Your task to perform on an android device: turn on javascript in the chrome app Image 0: 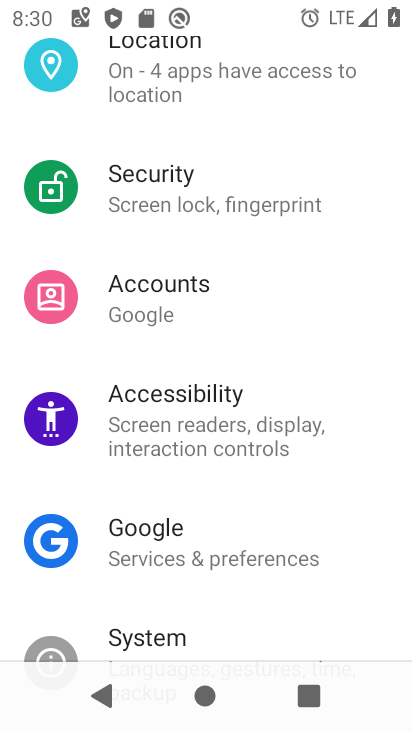
Step 0: press home button
Your task to perform on an android device: turn on javascript in the chrome app Image 1: 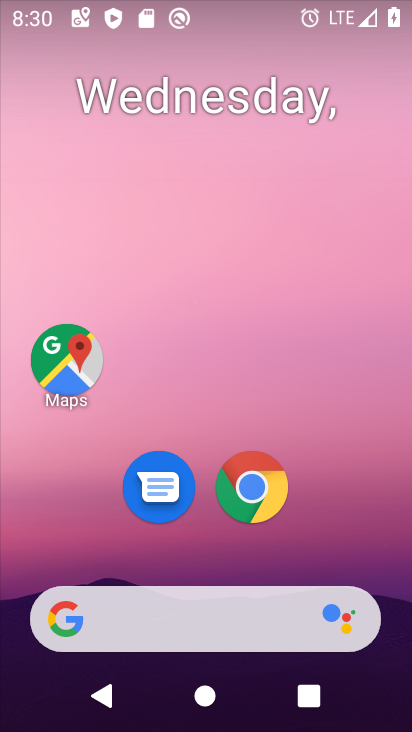
Step 1: click (259, 508)
Your task to perform on an android device: turn on javascript in the chrome app Image 2: 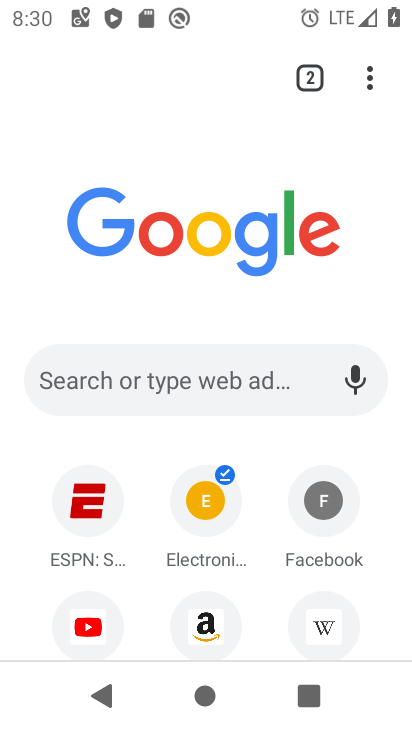
Step 2: click (371, 81)
Your task to perform on an android device: turn on javascript in the chrome app Image 3: 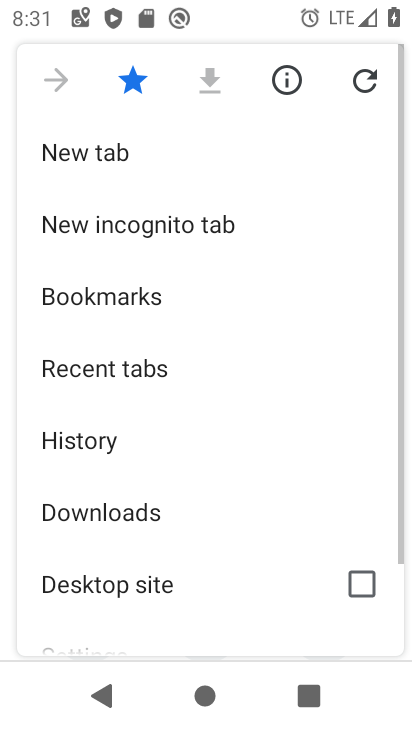
Step 3: drag from (169, 414) to (206, 164)
Your task to perform on an android device: turn on javascript in the chrome app Image 4: 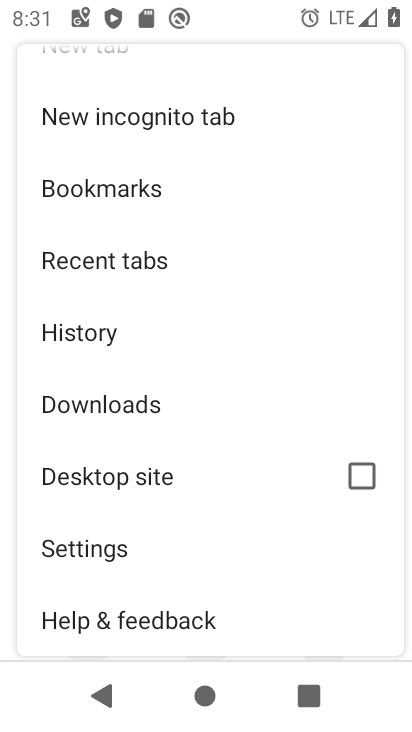
Step 4: click (67, 545)
Your task to perform on an android device: turn on javascript in the chrome app Image 5: 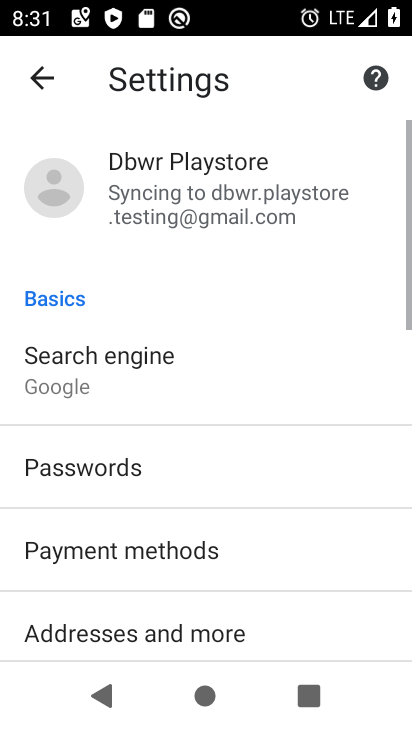
Step 5: drag from (228, 571) to (232, 210)
Your task to perform on an android device: turn on javascript in the chrome app Image 6: 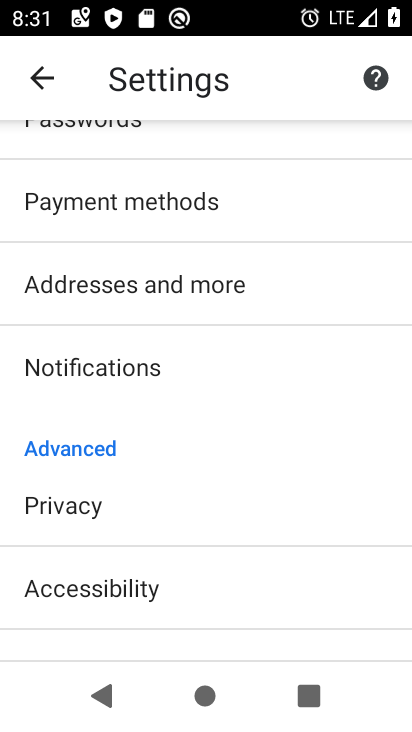
Step 6: drag from (176, 476) to (205, 189)
Your task to perform on an android device: turn on javascript in the chrome app Image 7: 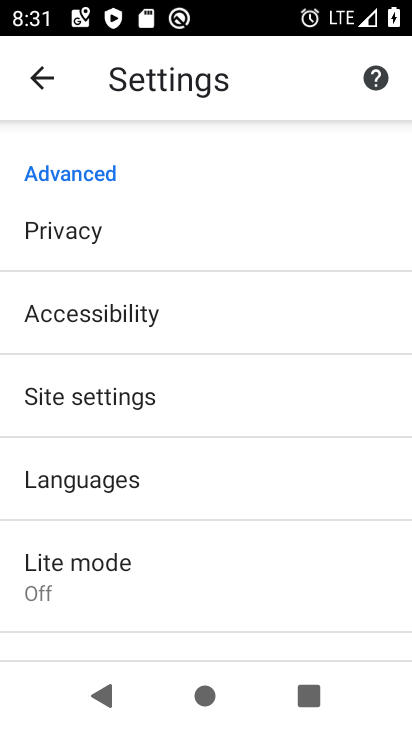
Step 7: click (101, 407)
Your task to perform on an android device: turn on javascript in the chrome app Image 8: 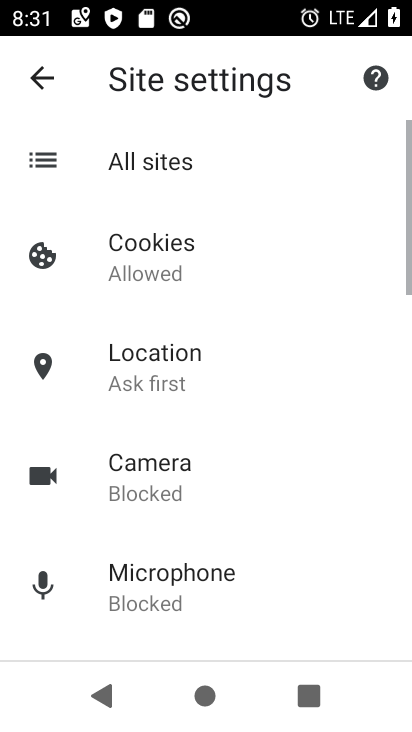
Step 8: drag from (327, 522) to (294, 239)
Your task to perform on an android device: turn on javascript in the chrome app Image 9: 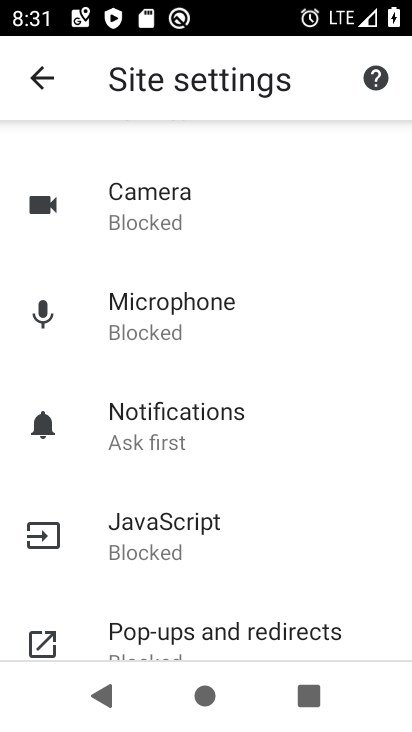
Step 9: click (181, 533)
Your task to perform on an android device: turn on javascript in the chrome app Image 10: 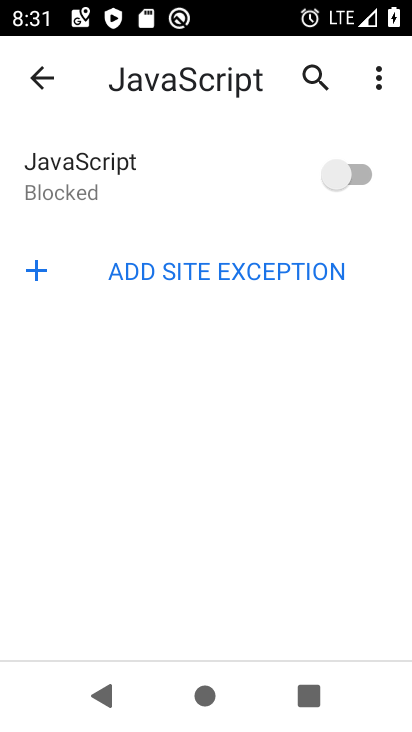
Step 10: click (315, 181)
Your task to perform on an android device: turn on javascript in the chrome app Image 11: 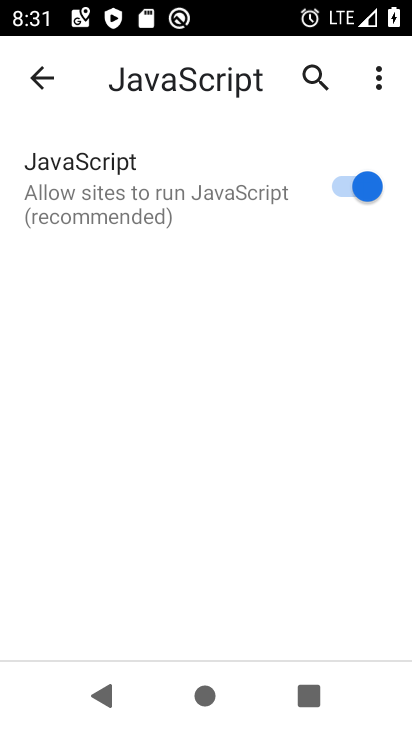
Step 11: task complete